Your task to perform on an android device: toggle translation in the chrome app Image 0: 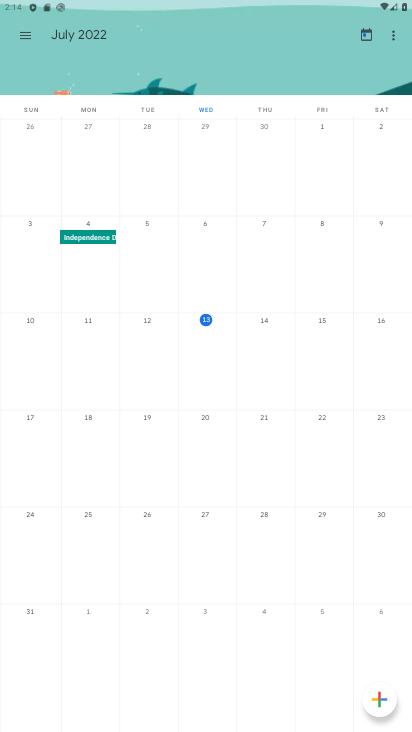
Step 0: press home button
Your task to perform on an android device: toggle translation in the chrome app Image 1: 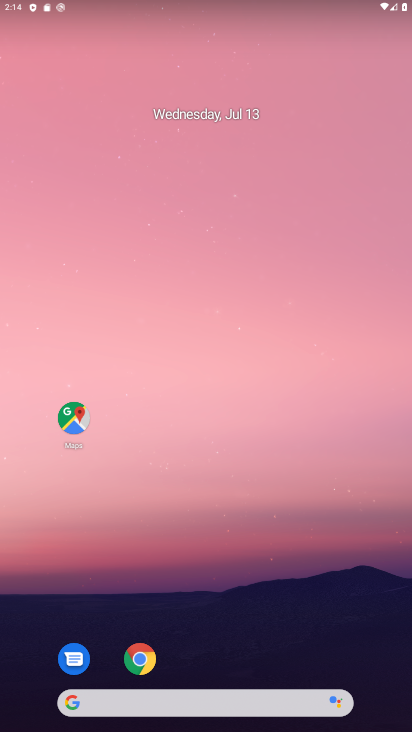
Step 1: click (140, 652)
Your task to perform on an android device: toggle translation in the chrome app Image 2: 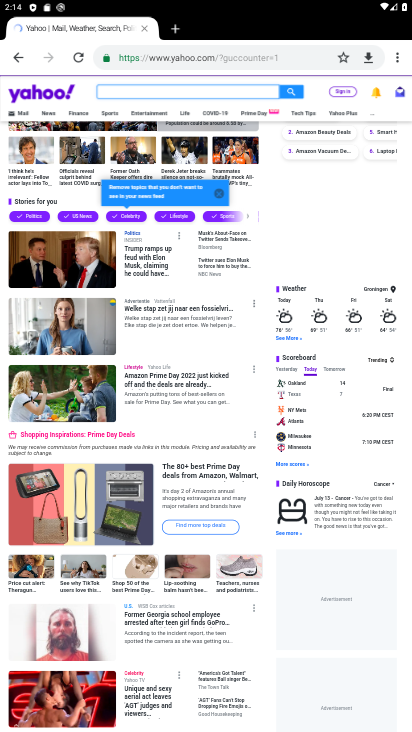
Step 2: drag from (311, 112) to (348, 608)
Your task to perform on an android device: toggle translation in the chrome app Image 3: 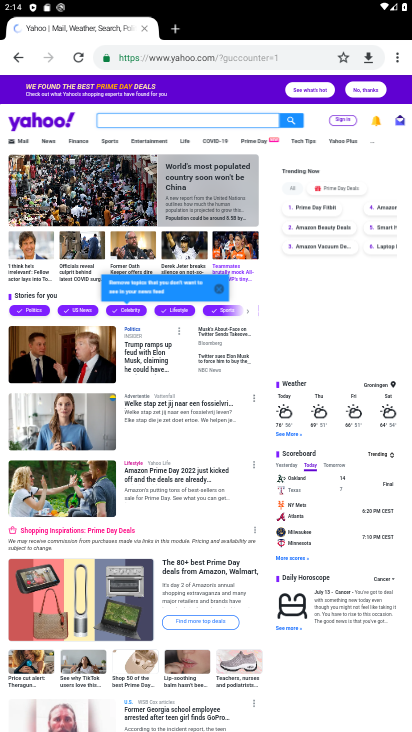
Step 3: click (398, 57)
Your task to perform on an android device: toggle translation in the chrome app Image 4: 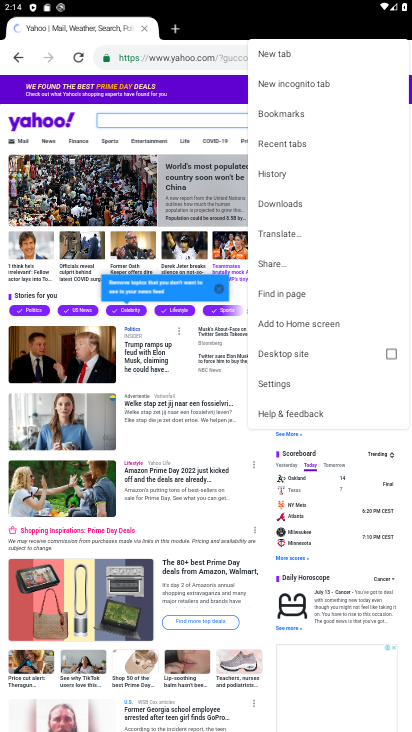
Step 4: click (288, 381)
Your task to perform on an android device: toggle translation in the chrome app Image 5: 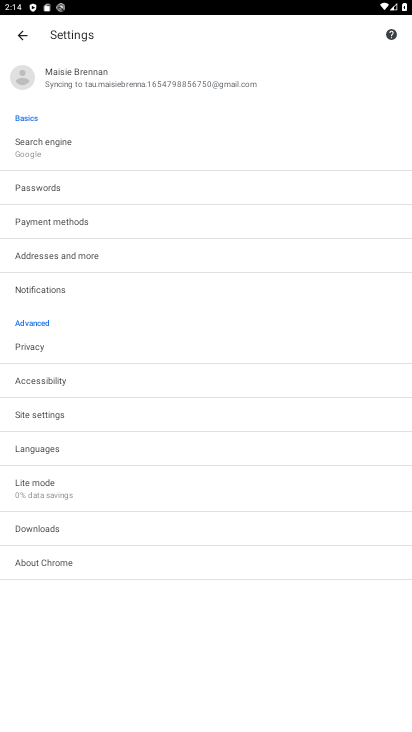
Step 5: click (60, 445)
Your task to perform on an android device: toggle translation in the chrome app Image 6: 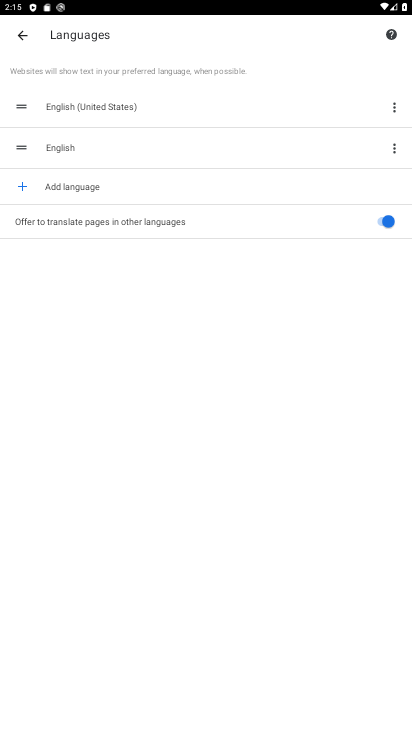
Step 6: click (383, 219)
Your task to perform on an android device: toggle translation in the chrome app Image 7: 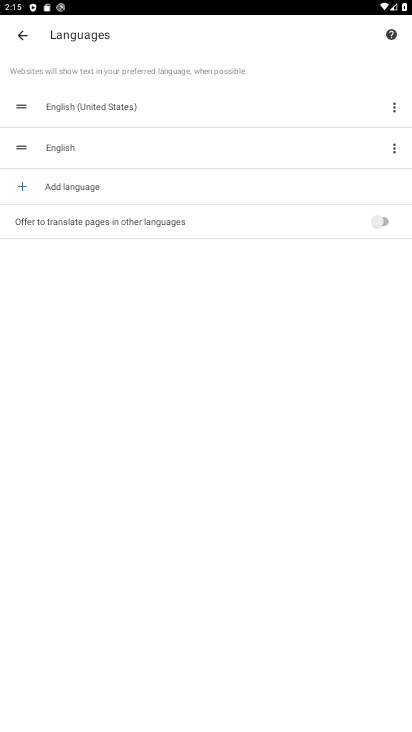
Step 7: task complete